Your task to perform on an android device: open wifi settings Image 0: 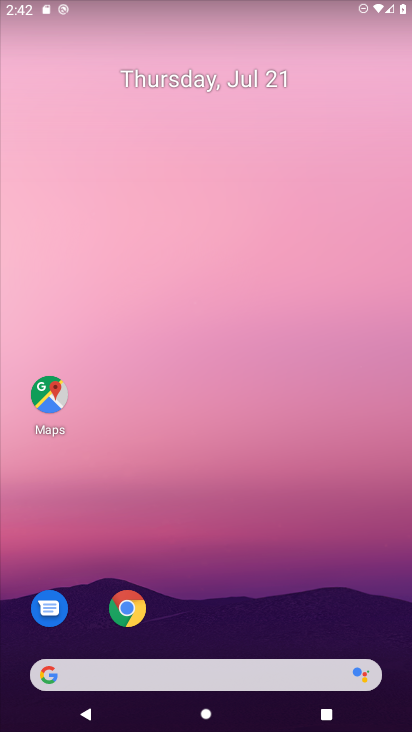
Step 0: drag from (224, 635) to (261, 112)
Your task to perform on an android device: open wifi settings Image 1: 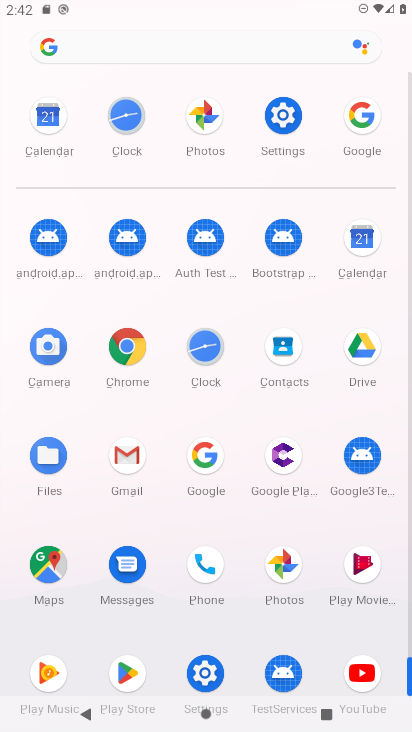
Step 1: click (264, 110)
Your task to perform on an android device: open wifi settings Image 2: 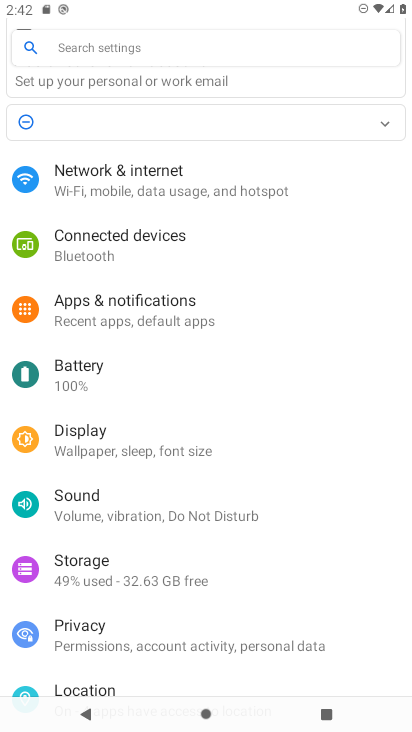
Step 2: click (158, 178)
Your task to perform on an android device: open wifi settings Image 3: 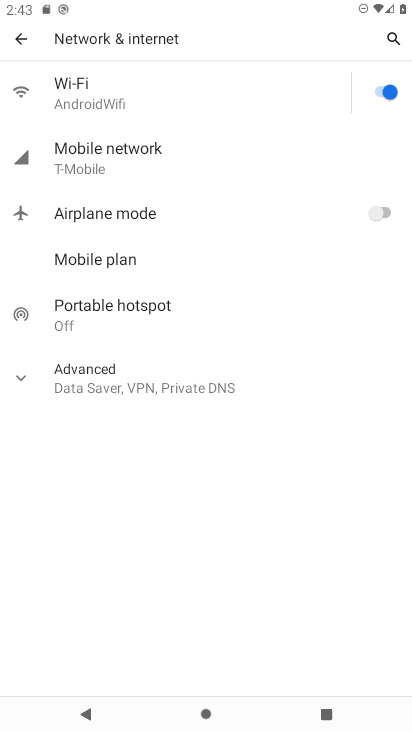
Step 3: click (110, 106)
Your task to perform on an android device: open wifi settings Image 4: 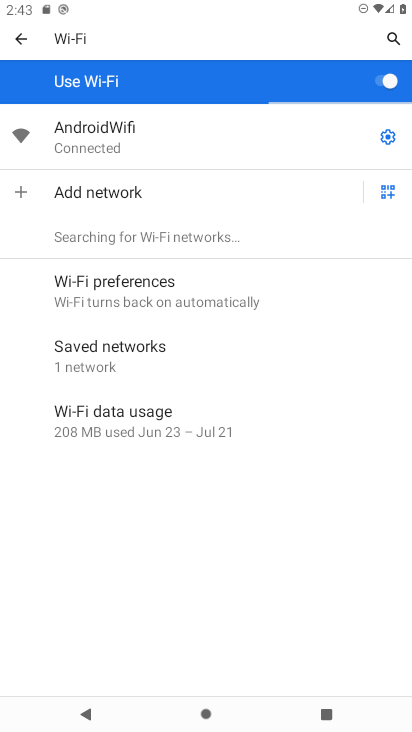
Step 4: task complete